Your task to perform on an android device: Go to Google Image 0: 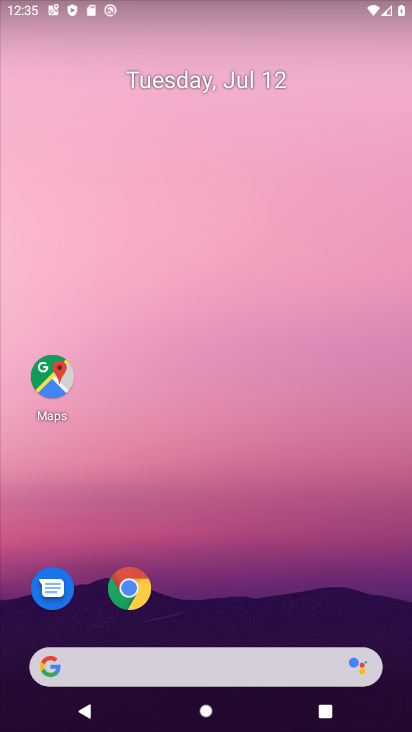
Step 0: drag from (206, 658) to (242, 391)
Your task to perform on an android device: Go to Google Image 1: 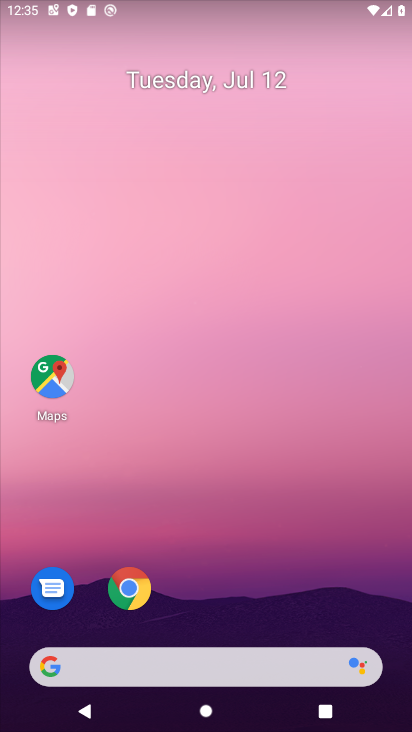
Step 1: drag from (124, 659) to (154, 342)
Your task to perform on an android device: Go to Google Image 2: 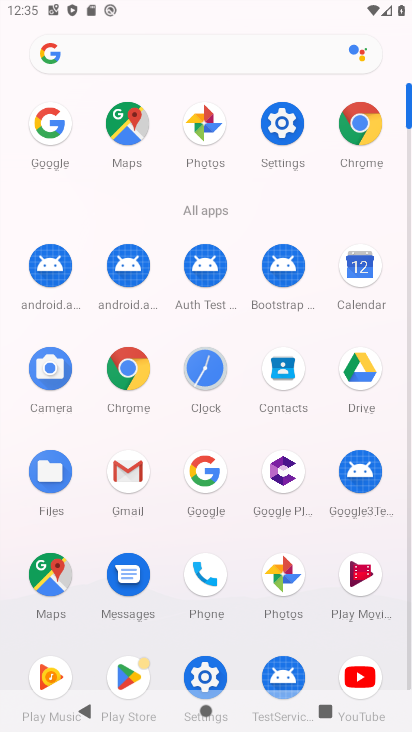
Step 2: click (198, 468)
Your task to perform on an android device: Go to Google Image 3: 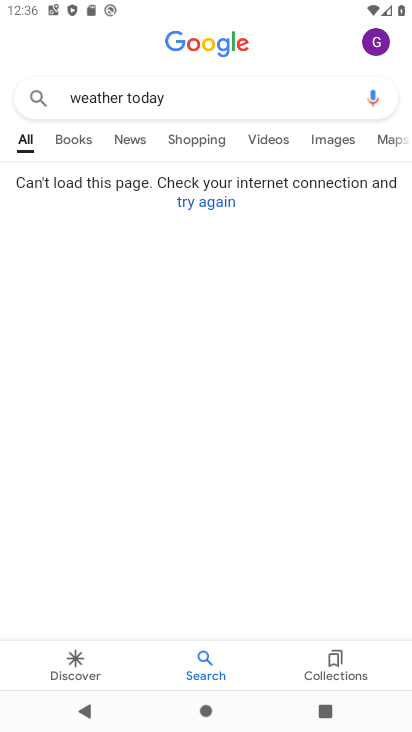
Step 3: task complete